Your task to perform on an android device: What's on my calendar today? Image 0: 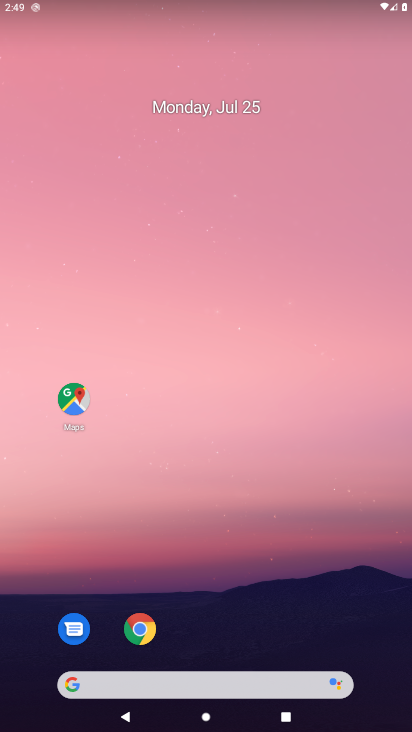
Step 0: drag from (25, 690) to (188, 367)
Your task to perform on an android device: What's on my calendar today? Image 1: 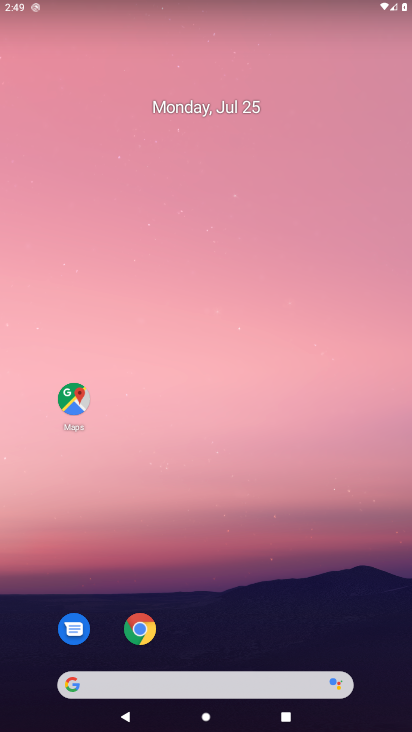
Step 1: drag from (40, 681) to (240, 184)
Your task to perform on an android device: What's on my calendar today? Image 2: 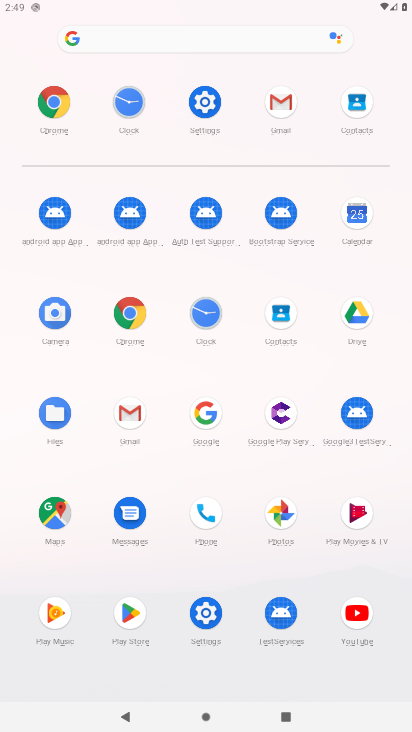
Step 2: click (343, 208)
Your task to perform on an android device: What's on my calendar today? Image 3: 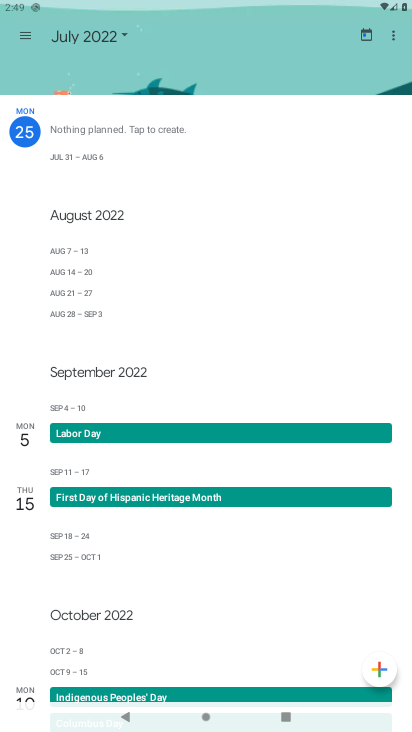
Step 3: click (118, 35)
Your task to perform on an android device: What's on my calendar today? Image 4: 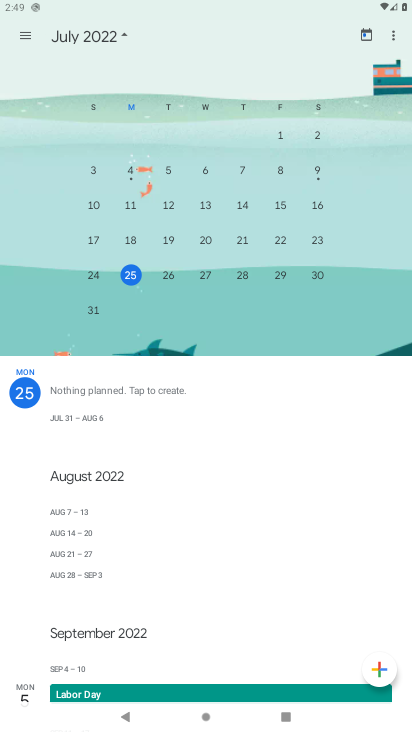
Step 4: task complete